Your task to perform on an android device: turn on showing notifications on the lock screen Image 0: 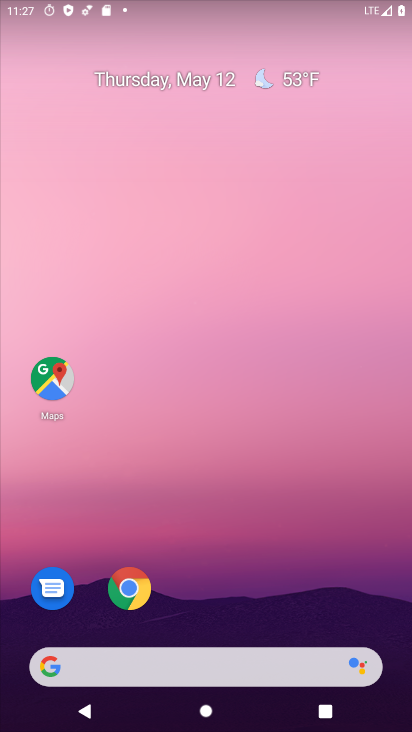
Step 0: drag from (278, 582) to (304, 11)
Your task to perform on an android device: turn on showing notifications on the lock screen Image 1: 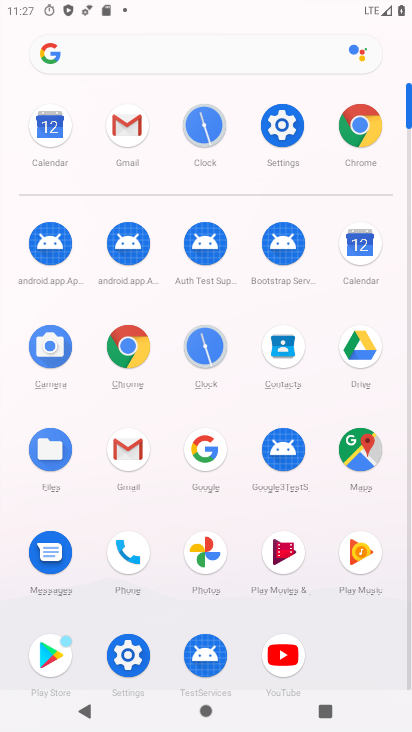
Step 1: click (286, 112)
Your task to perform on an android device: turn on showing notifications on the lock screen Image 2: 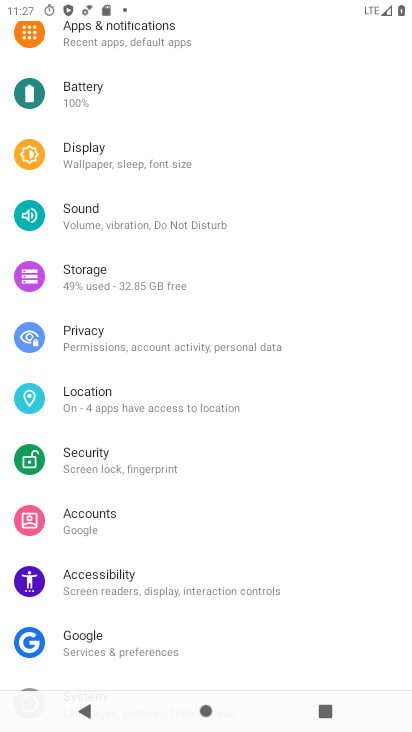
Step 2: drag from (238, 104) to (252, 455)
Your task to perform on an android device: turn on showing notifications on the lock screen Image 3: 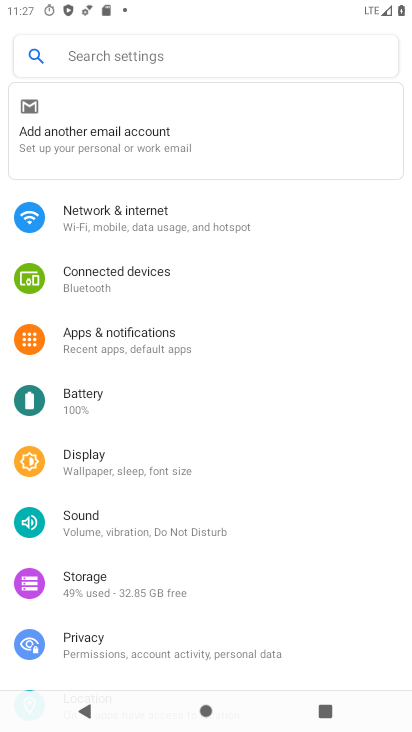
Step 3: click (144, 337)
Your task to perform on an android device: turn on showing notifications on the lock screen Image 4: 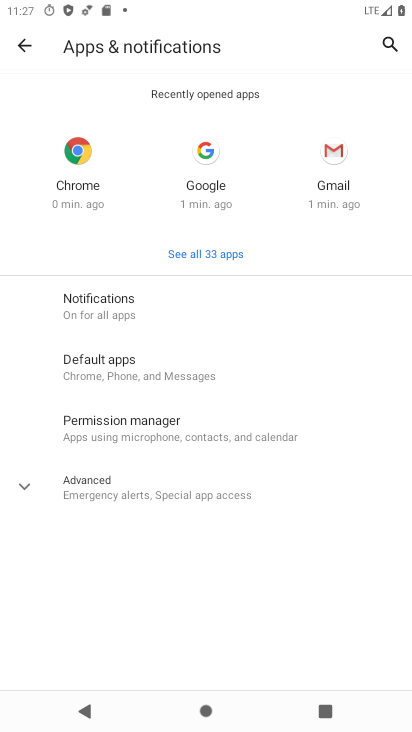
Step 4: click (123, 299)
Your task to perform on an android device: turn on showing notifications on the lock screen Image 5: 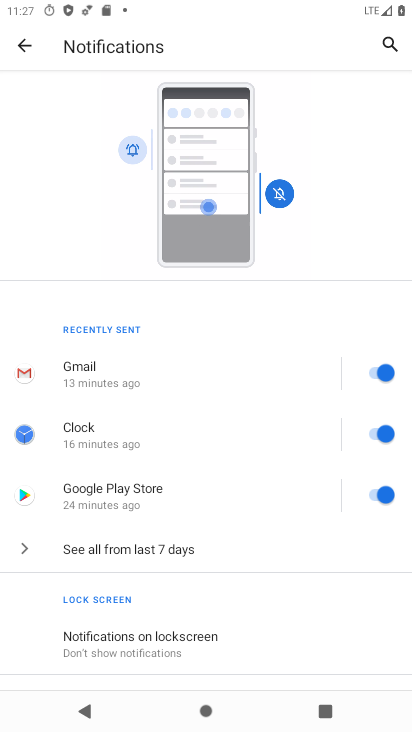
Step 5: drag from (245, 614) to (220, 214)
Your task to perform on an android device: turn on showing notifications on the lock screen Image 6: 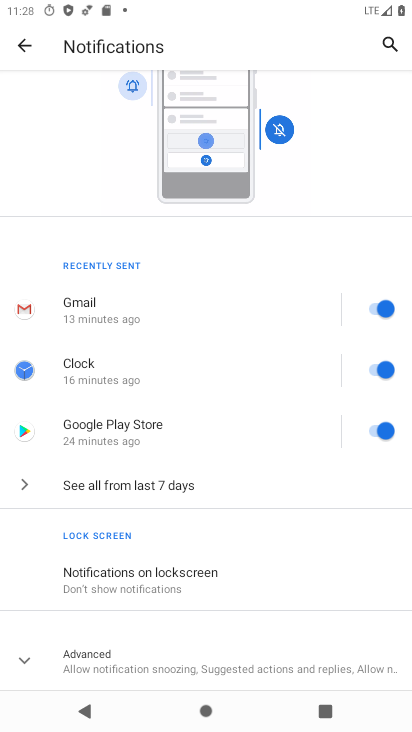
Step 6: click (144, 583)
Your task to perform on an android device: turn on showing notifications on the lock screen Image 7: 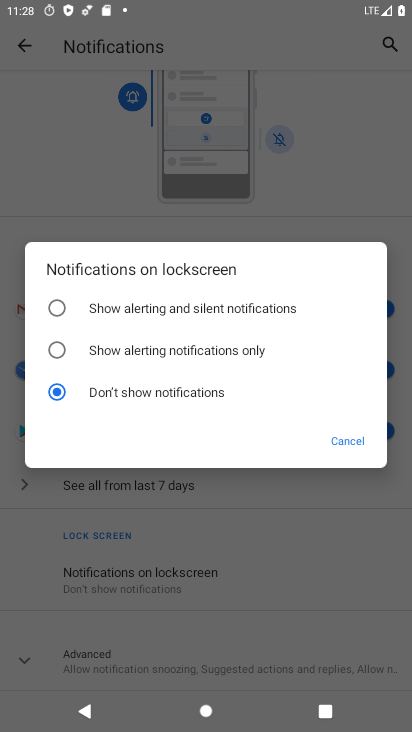
Step 7: click (229, 370)
Your task to perform on an android device: turn on showing notifications on the lock screen Image 8: 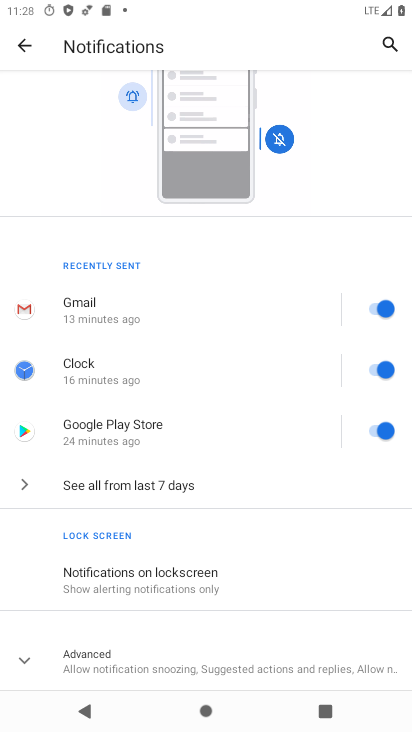
Step 8: click (193, 589)
Your task to perform on an android device: turn on showing notifications on the lock screen Image 9: 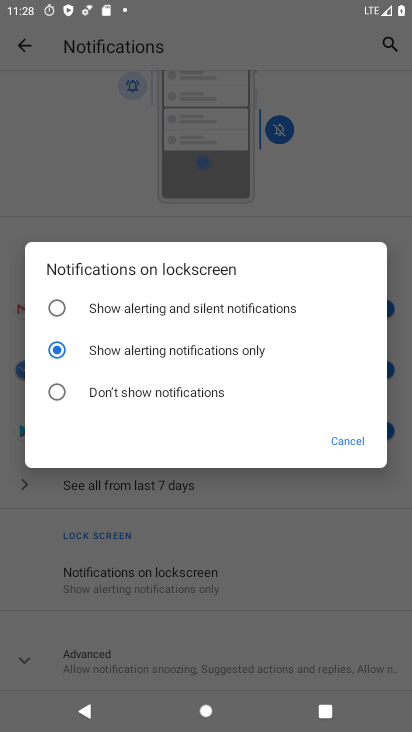
Step 9: task complete